Your task to perform on an android device: Is it going to rain this weekend? Image 0: 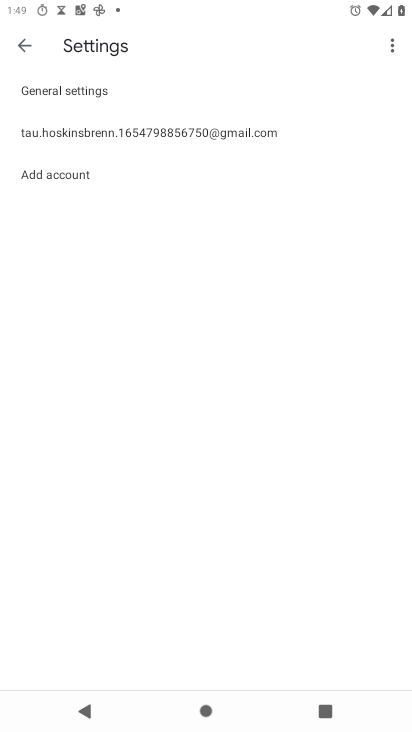
Step 0: press home button
Your task to perform on an android device: Is it going to rain this weekend? Image 1: 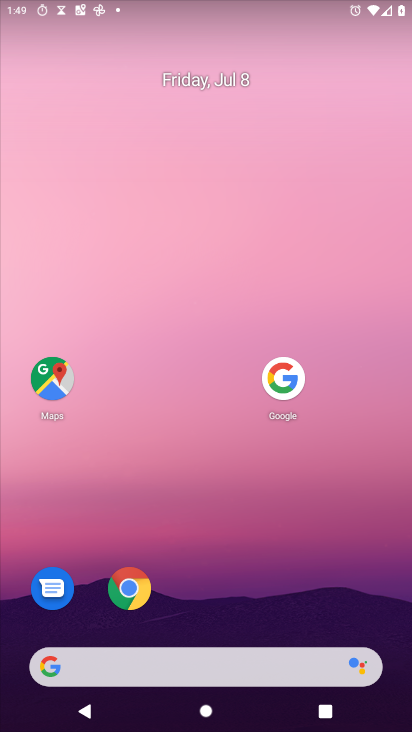
Step 1: click (157, 662)
Your task to perform on an android device: Is it going to rain this weekend? Image 2: 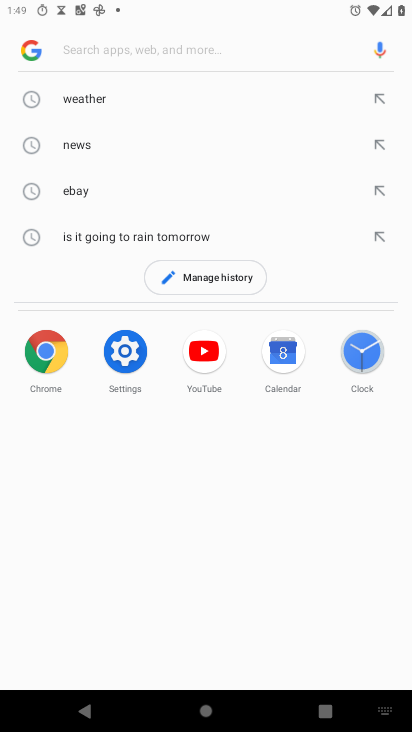
Step 2: click (96, 100)
Your task to perform on an android device: Is it going to rain this weekend? Image 3: 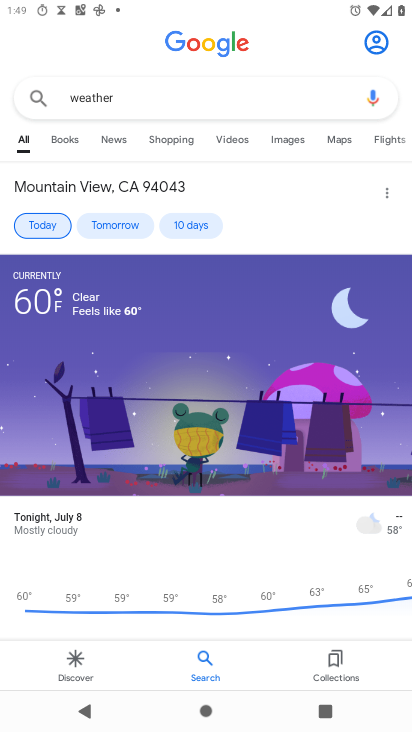
Step 3: click (188, 219)
Your task to perform on an android device: Is it going to rain this weekend? Image 4: 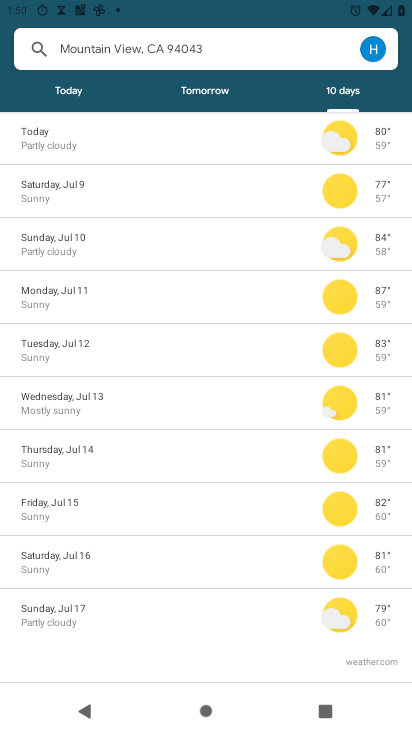
Step 4: click (66, 193)
Your task to perform on an android device: Is it going to rain this weekend? Image 5: 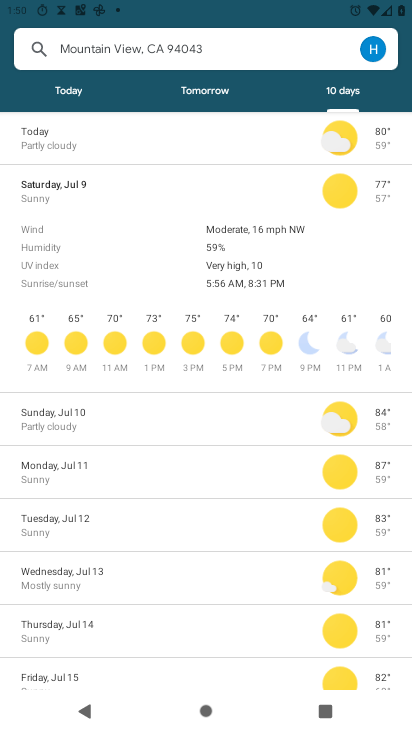
Step 5: task complete